Your task to perform on an android device: Open privacy settings Image 0: 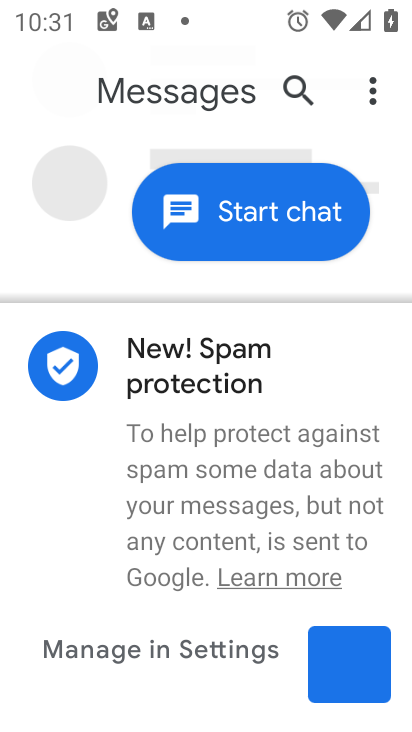
Step 0: press home button
Your task to perform on an android device: Open privacy settings Image 1: 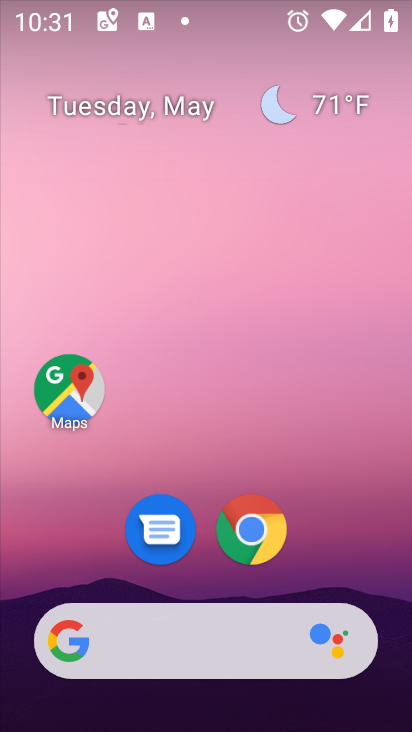
Step 1: drag from (278, 617) to (353, 9)
Your task to perform on an android device: Open privacy settings Image 2: 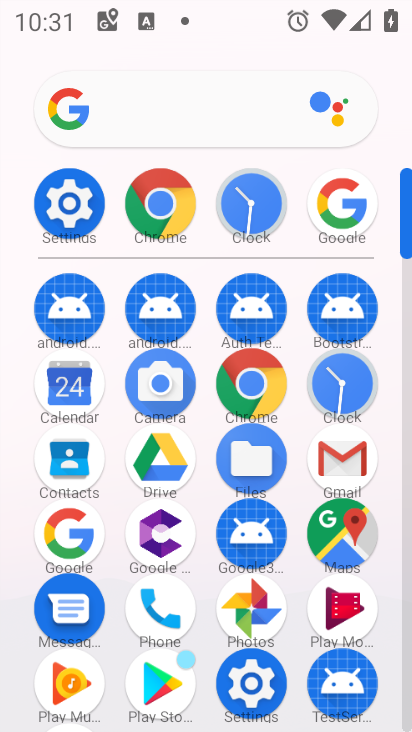
Step 2: click (95, 214)
Your task to perform on an android device: Open privacy settings Image 3: 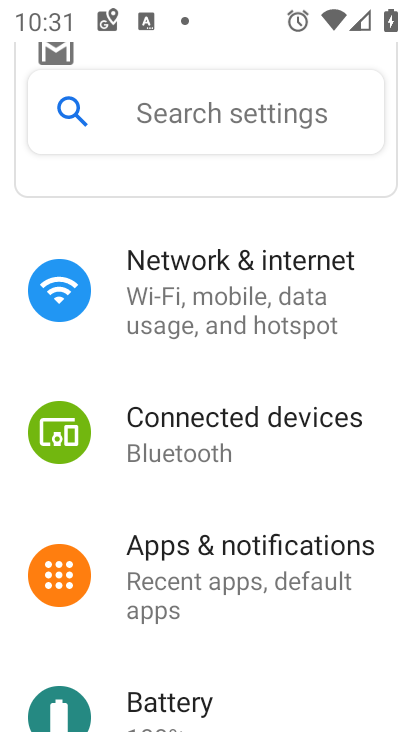
Step 3: click (129, 249)
Your task to perform on an android device: Open privacy settings Image 4: 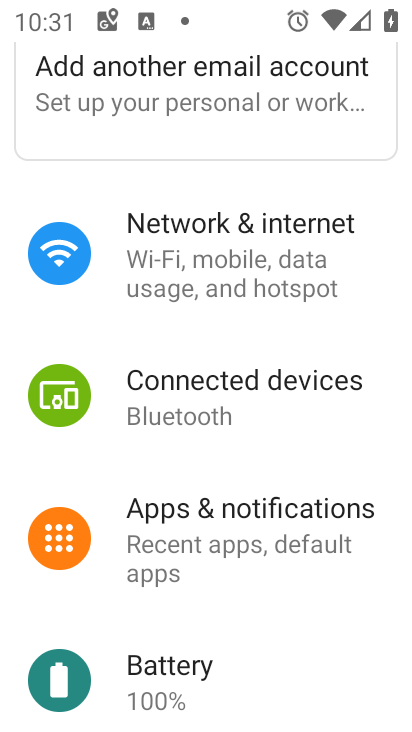
Step 4: drag from (154, 439) to (180, 253)
Your task to perform on an android device: Open privacy settings Image 5: 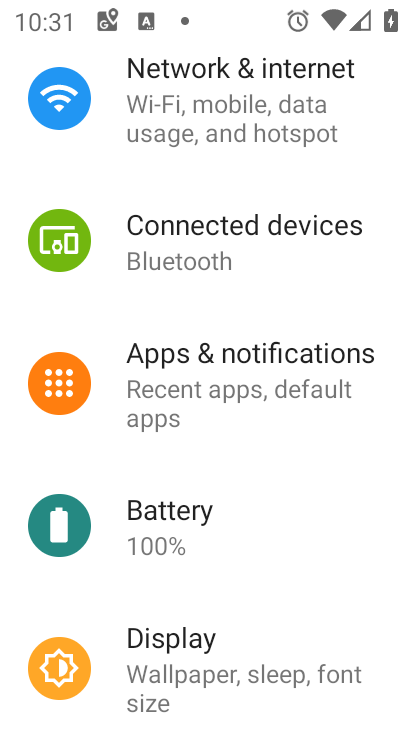
Step 5: drag from (190, 498) to (219, 225)
Your task to perform on an android device: Open privacy settings Image 6: 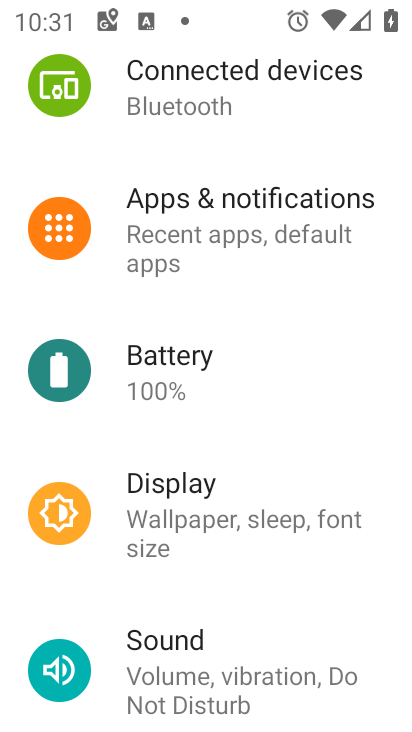
Step 6: drag from (213, 523) to (240, 280)
Your task to perform on an android device: Open privacy settings Image 7: 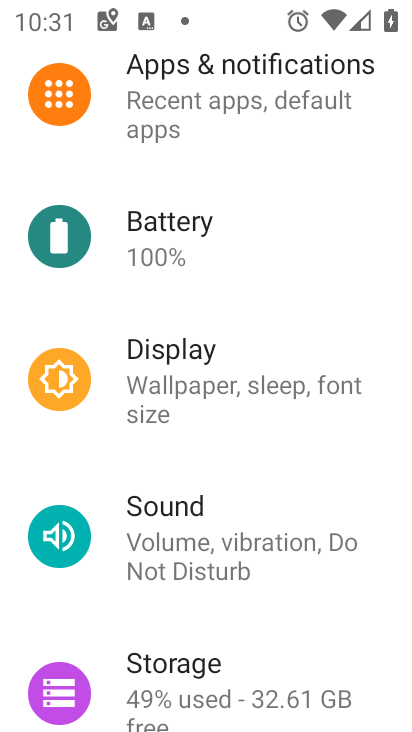
Step 7: drag from (240, 520) to (249, 300)
Your task to perform on an android device: Open privacy settings Image 8: 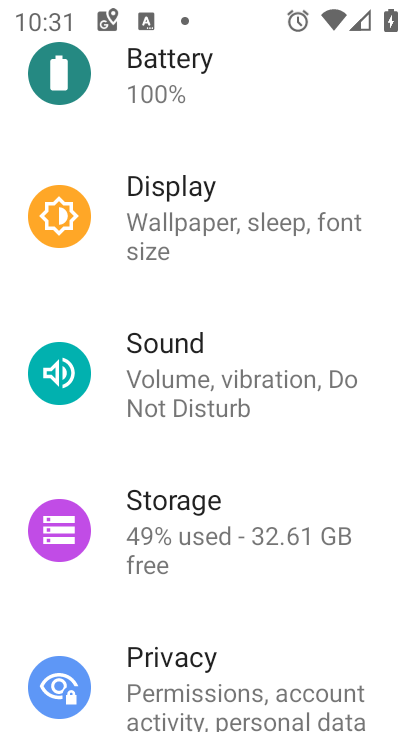
Step 8: click (210, 678)
Your task to perform on an android device: Open privacy settings Image 9: 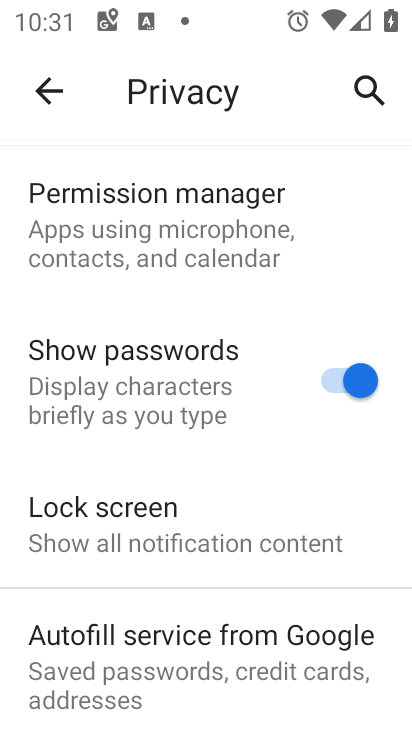
Step 9: task complete